Your task to perform on an android device: allow cookies in the chrome app Image 0: 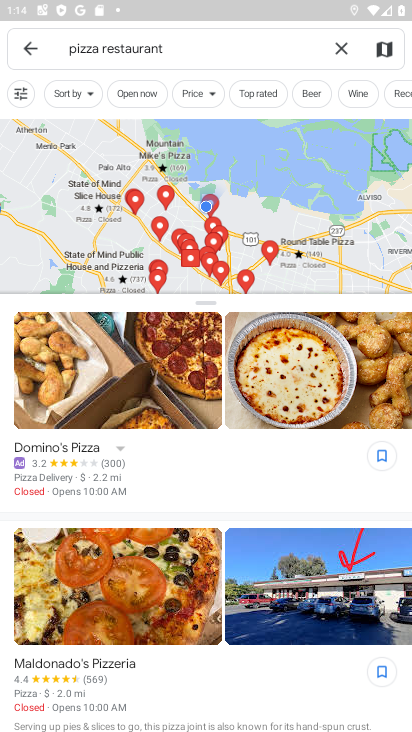
Step 0: press home button
Your task to perform on an android device: allow cookies in the chrome app Image 1: 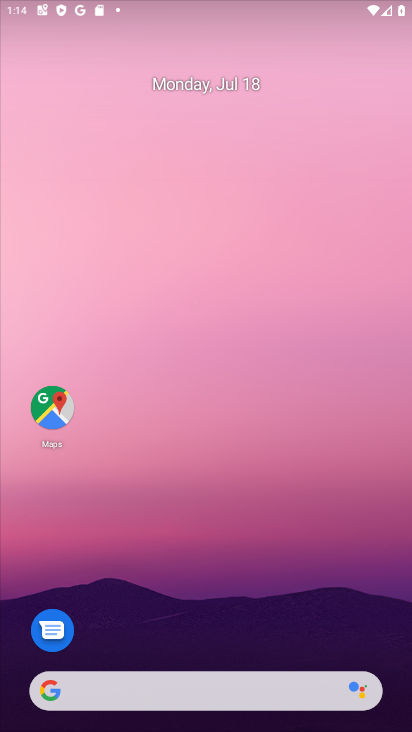
Step 1: drag from (318, 696) to (352, 11)
Your task to perform on an android device: allow cookies in the chrome app Image 2: 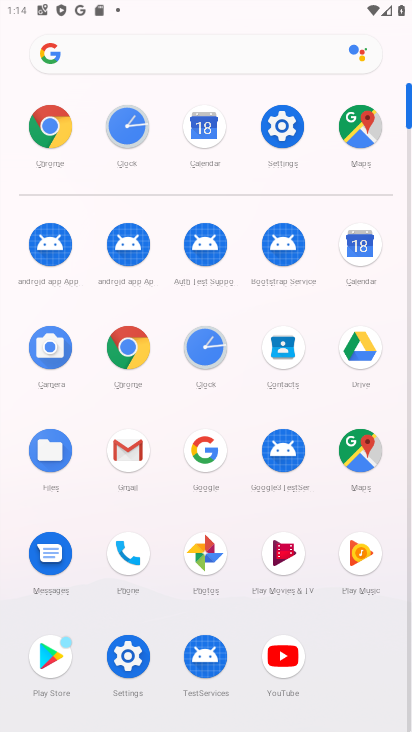
Step 2: click (144, 362)
Your task to perform on an android device: allow cookies in the chrome app Image 3: 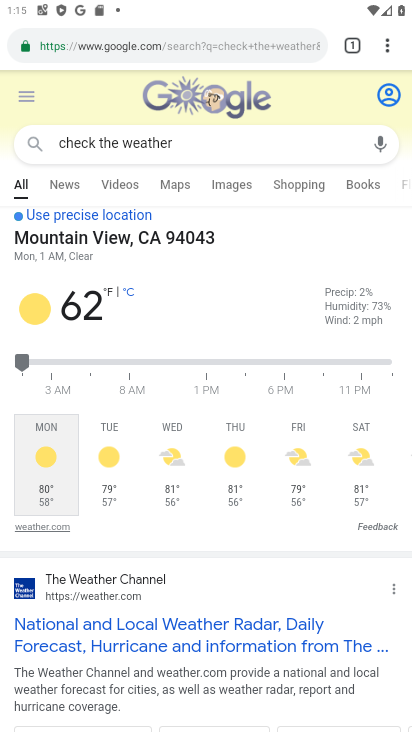
Step 3: click (390, 48)
Your task to perform on an android device: allow cookies in the chrome app Image 4: 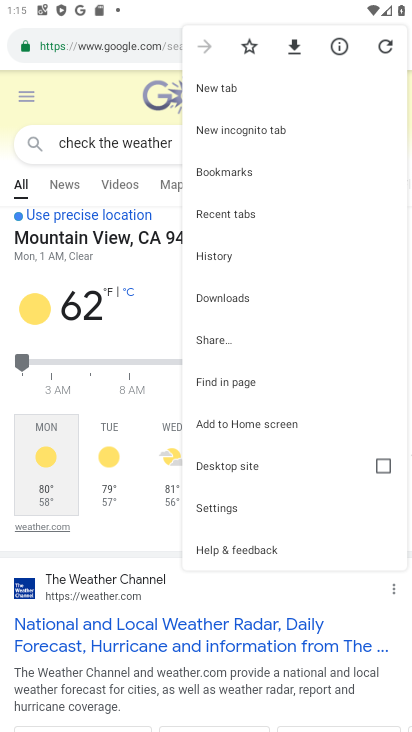
Step 4: click (253, 504)
Your task to perform on an android device: allow cookies in the chrome app Image 5: 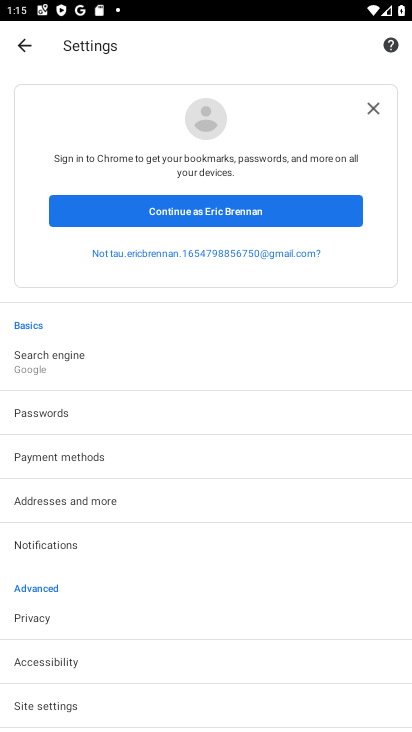
Step 5: drag from (229, 660) to (262, 153)
Your task to perform on an android device: allow cookies in the chrome app Image 6: 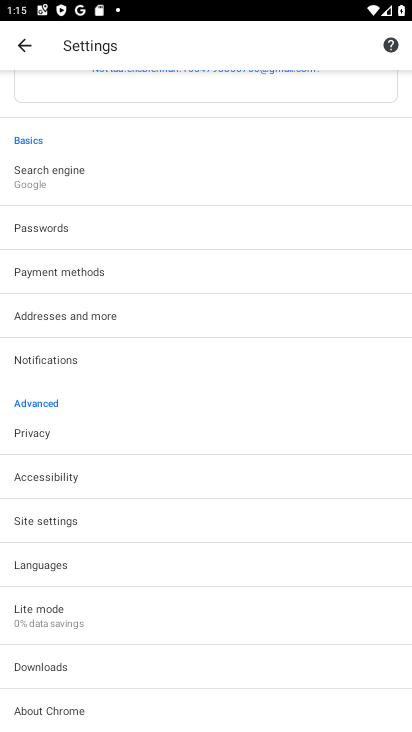
Step 6: click (72, 518)
Your task to perform on an android device: allow cookies in the chrome app Image 7: 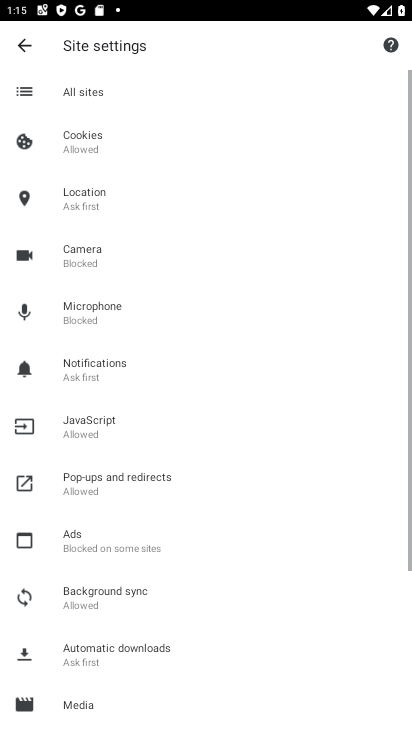
Step 7: click (107, 136)
Your task to perform on an android device: allow cookies in the chrome app Image 8: 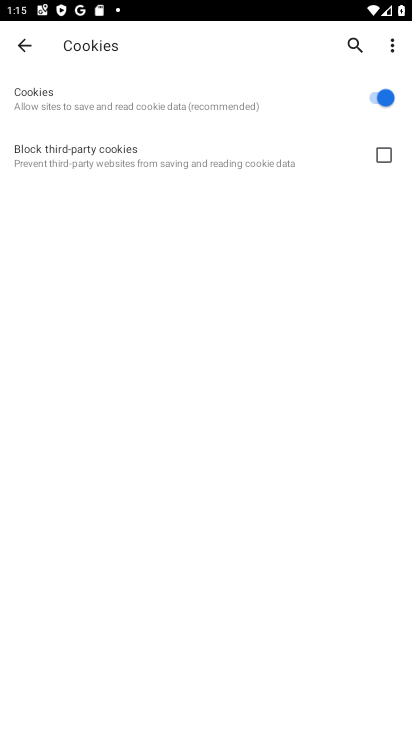
Step 8: task complete